Your task to perform on an android device: change notifications settings Image 0: 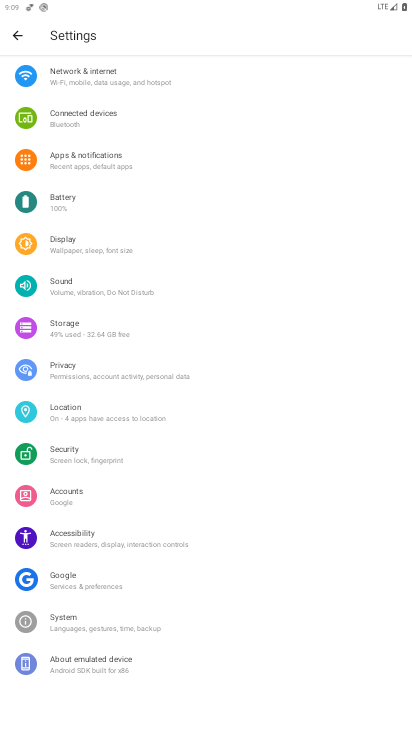
Step 0: press home button
Your task to perform on an android device: change notifications settings Image 1: 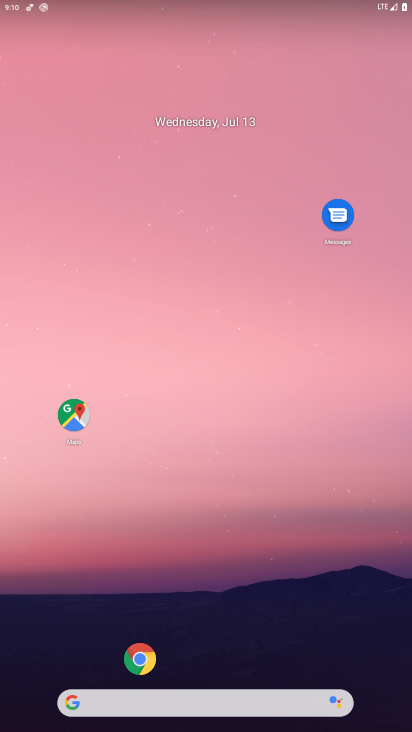
Step 1: drag from (70, 441) to (218, 2)
Your task to perform on an android device: change notifications settings Image 2: 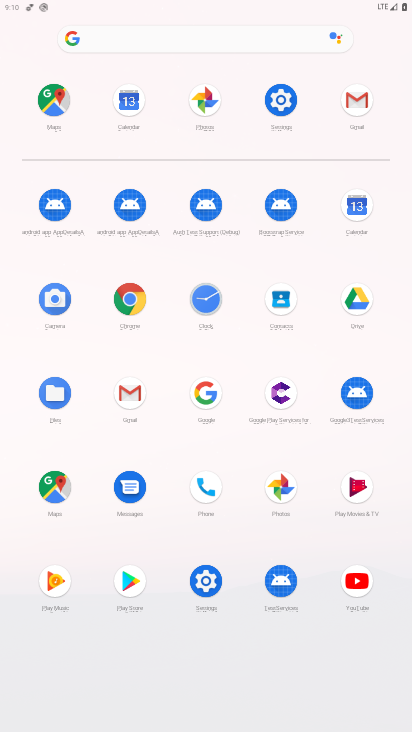
Step 2: click (198, 580)
Your task to perform on an android device: change notifications settings Image 3: 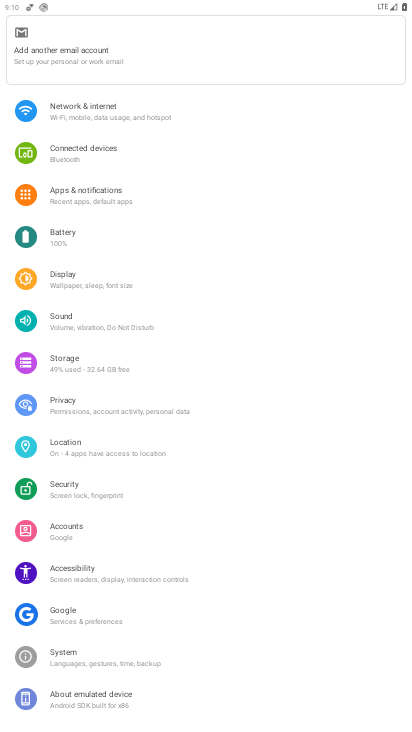
Step 3: click (94, 197)
Your task to perform on an android device: change notifications settings Image 4: 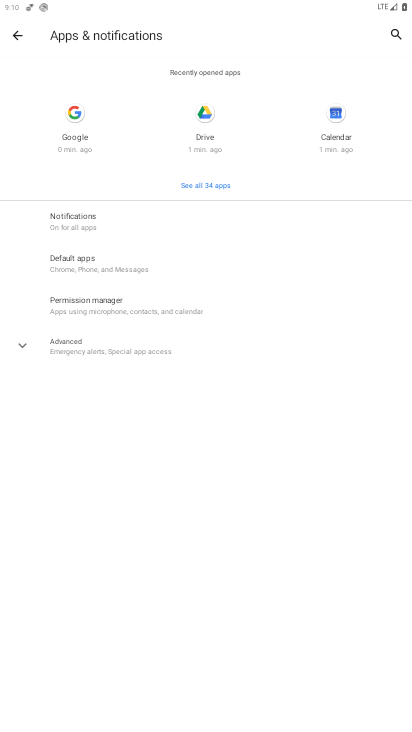
Step 4: click (87, 226)
Your task to perform on an android device: change notifications settings Image 5: 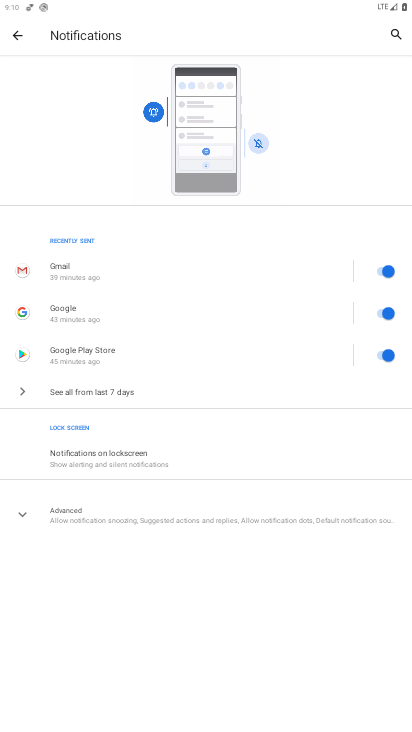
Step 5: task complete